Your task to perform on an android device: empty trash in google photos Image 0: 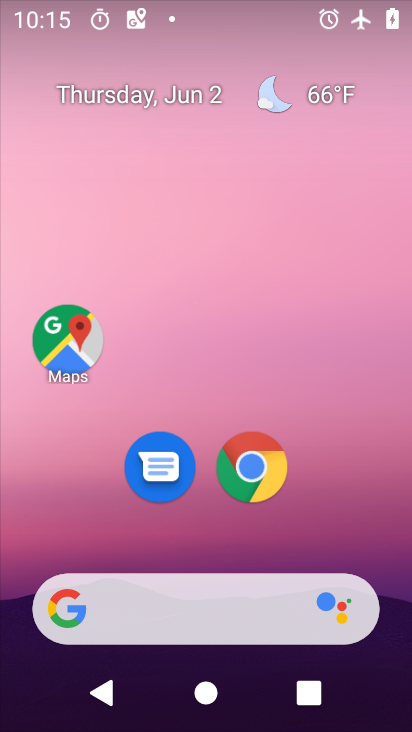
Step 0: press home button
Your task to perform on an android device: empty trash in google photos Image 1: 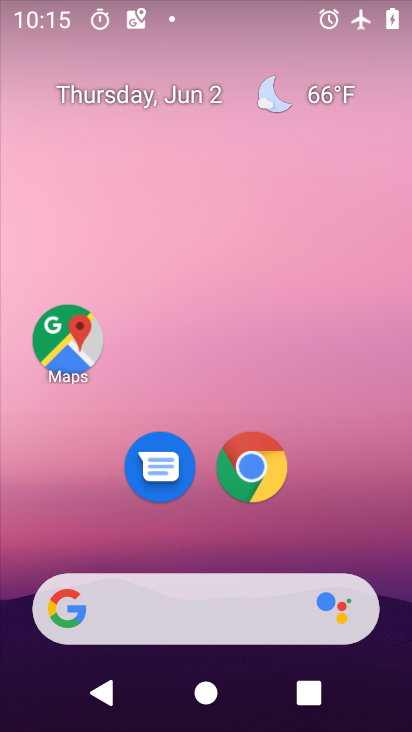
Step 1: drag from (0, 547) to (224, 120)
Your task to perform on an android device: empty trash in google photos Image 2: 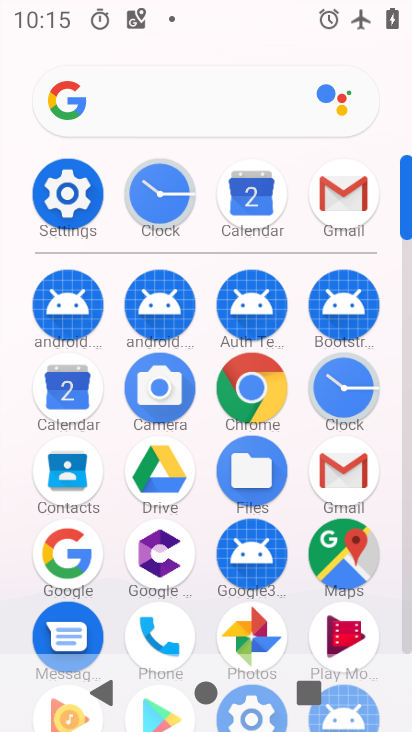
Step 2: click (227, 630)
Your task to perform on an android device: empty trash in google photos Image 3: 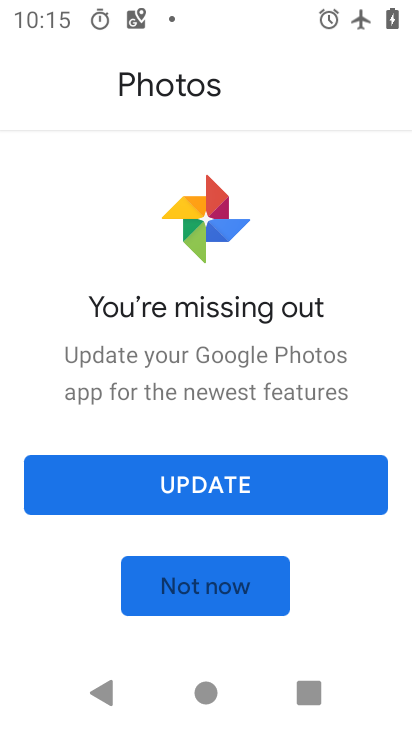
Step 3: click (179, 582)
Your task to perform on an android device: empty trash in google photos Image 4: 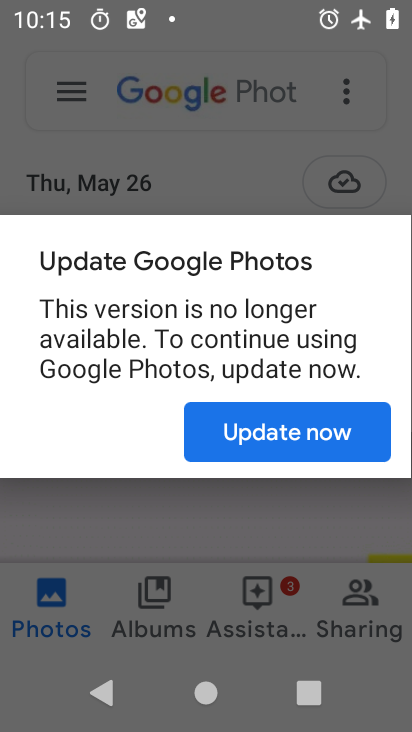
Step 4: click (301, 449)
Your task to perform on an android device: empty trash in google photos Image 5: 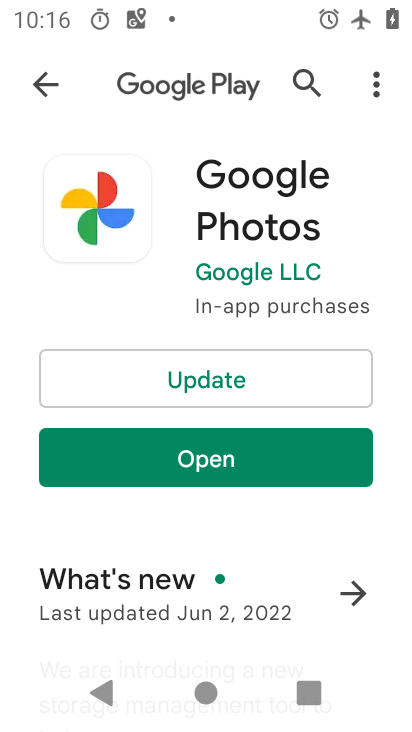
Step 5: click (96, 437)
Your task to perform on an android device: empty trash in google photos Image 6: 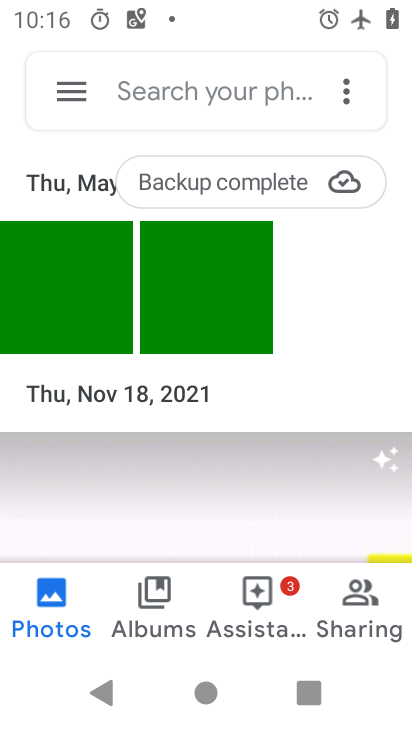
Step 6: click (78, 85)
Your task to perform on an android device: empty trash in google photos Image 7: 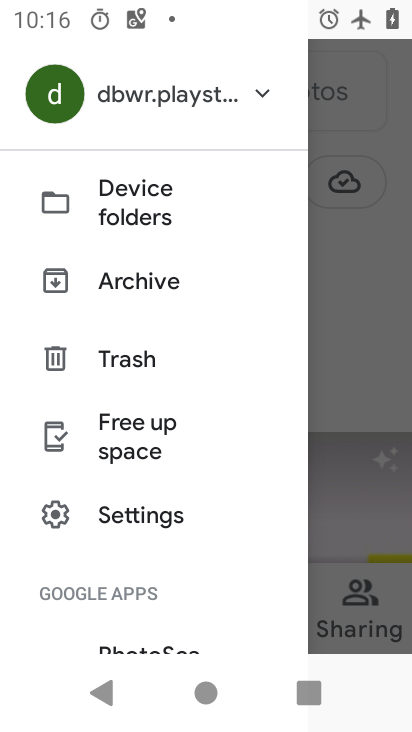
Step 7: click (94, 364)
Your task to perform on an android device: empty trash in google photos Image 8: 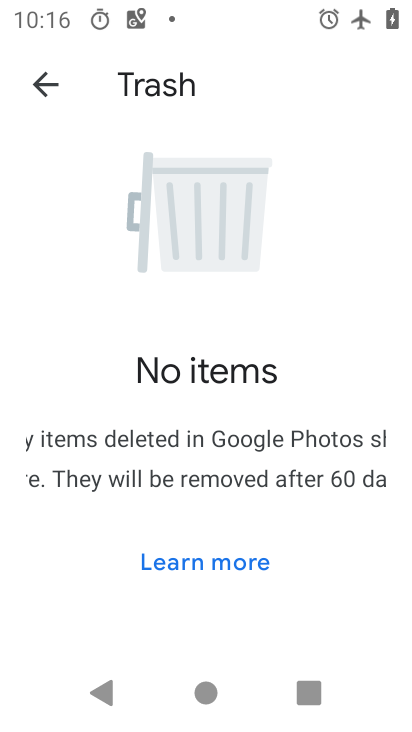
Step 8: task complete